Your task to perform on an android device: toggle priority inbox in the gmail app Image 0: 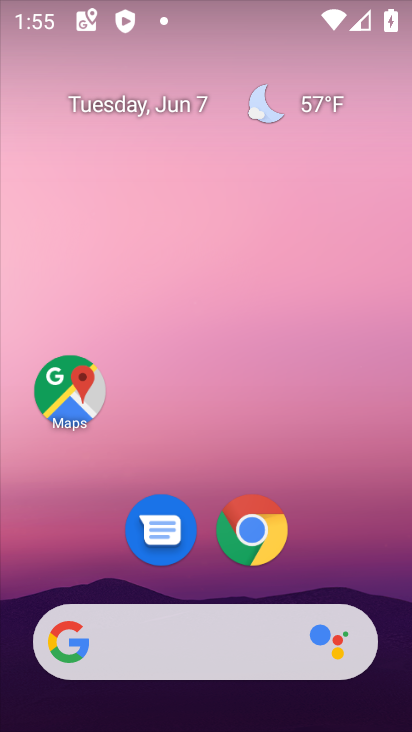
Step 0: drag from (292, 366) to (251, 111)
Your task to perform on an android device: toggle priority inbox in the gmail app Image 1: 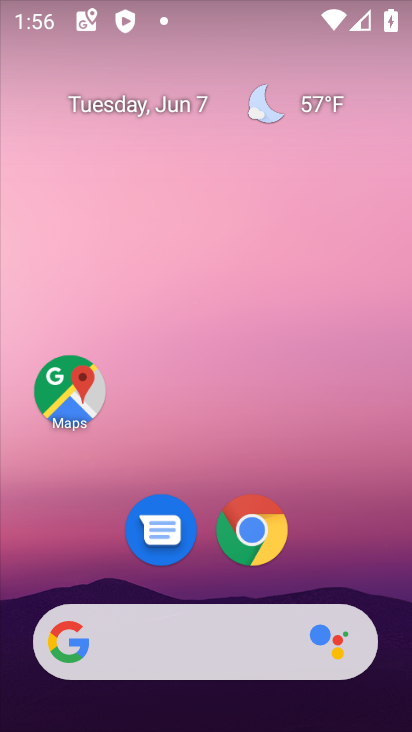
Step 1: drag from (315, 554) to (271, 118)
Your task to perform on an android device: toggle priority inbox in the gmail app Image 2: 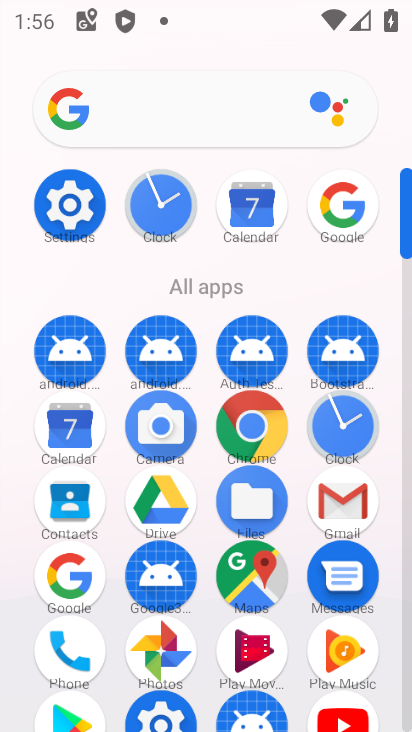
Step 2: click (347, 503)
Your task to perform on an android device: toggle priority inbox in the gmail app Image 3: 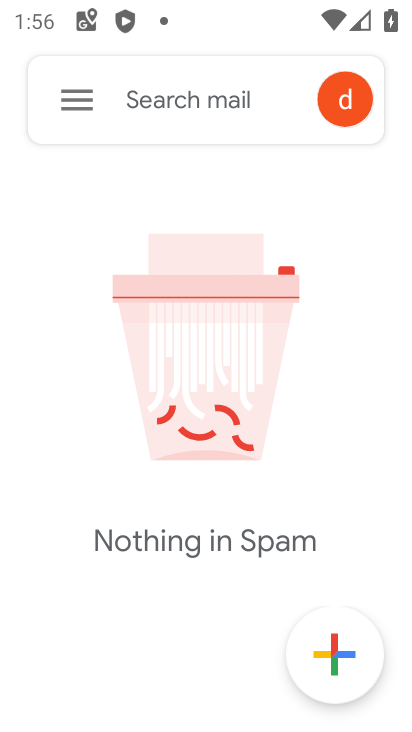
Step 3: click (73, 100)
Your task to perform on an android device: toggle priority inbox in the gmail app Image 4: 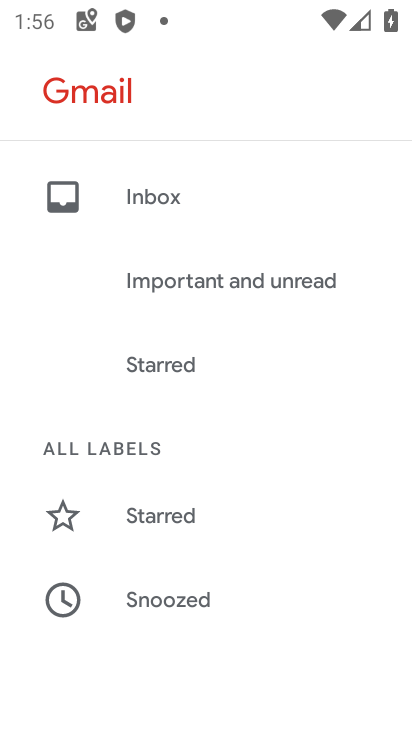
Step 4: drag from (227, 582) to (205, 158)
Your task to perform on an android device: toggle priority inbox in the gmail app Image 5: 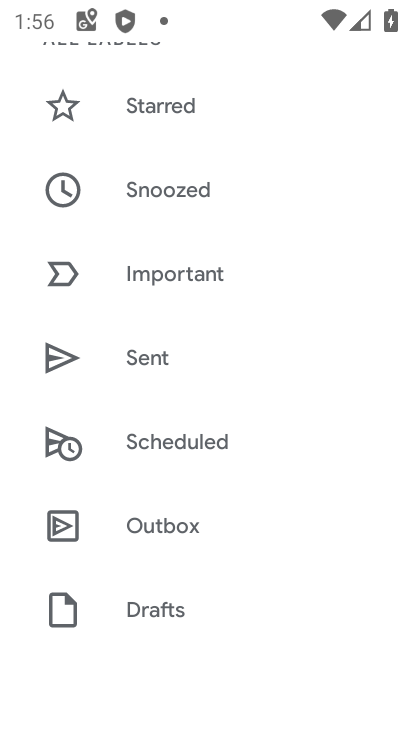
Step 5: drag from (240, 584) to (196, 192)
Your task to perform on an android device: toggle priority inbox in the gmail app Image 6: 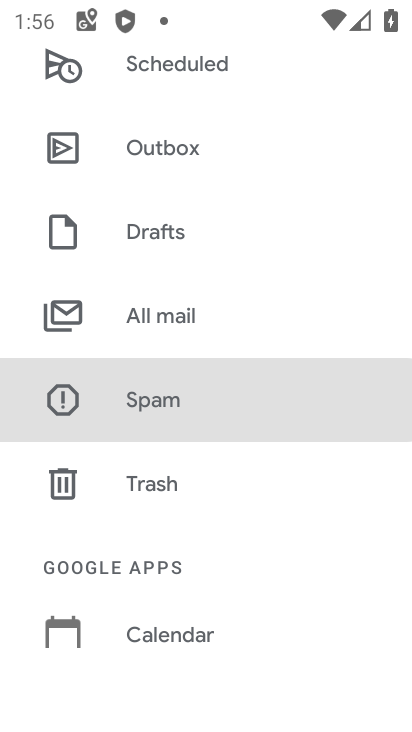
Step 6: drag from (219, 593) to (212, 233)
Your task to perform on an android device: toggle priority inbox in the gmail app Image 7: 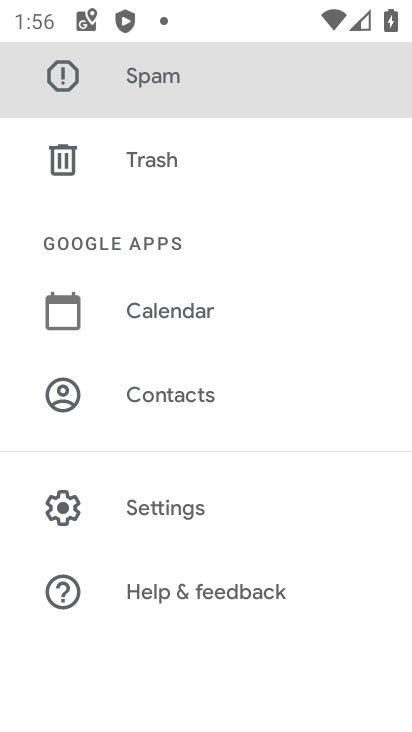
Step 7: click (179, 514)
Your task to perform on an android device: toggle priority inbox in the gmail app Image 8: 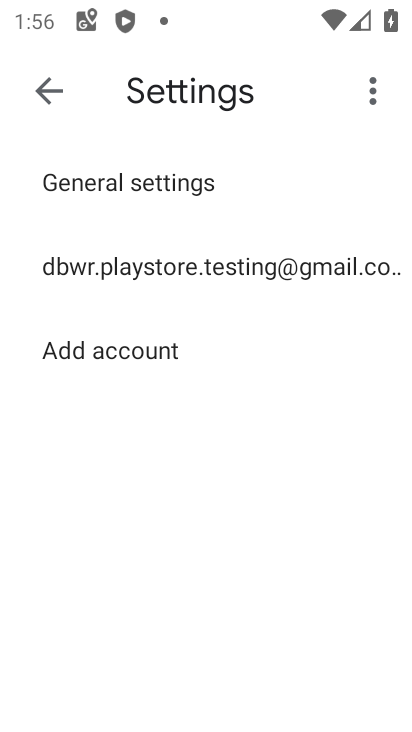
Step 8: click (98, 272)
Your task to perform on an android device: toggle priority inbox in the gmail app Image 9: 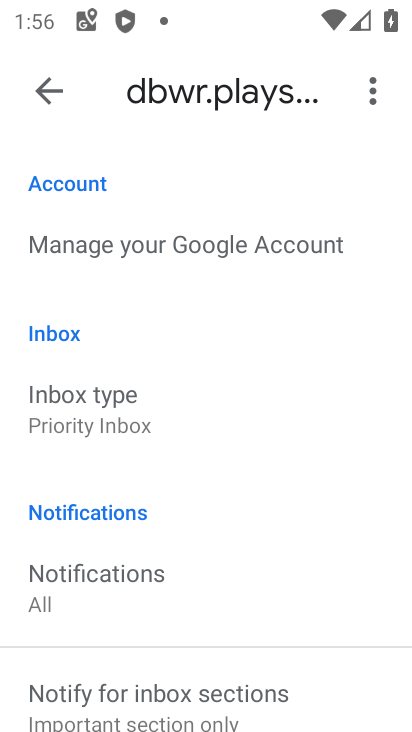
Step 9: click (133, 410)
Your task to perform on an android device: toggle priority inbox in the gmail app Image 10: 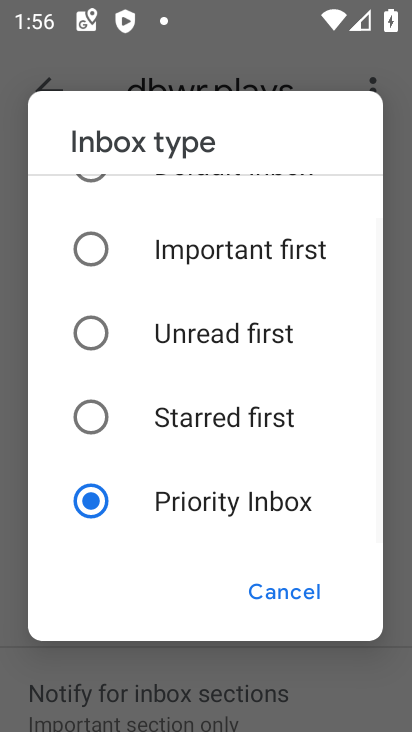
Step 10: drag from (133, 450) to (136, 500)
Your task to perform on an android device: toggle priority inbox in the gmail app Image 11: 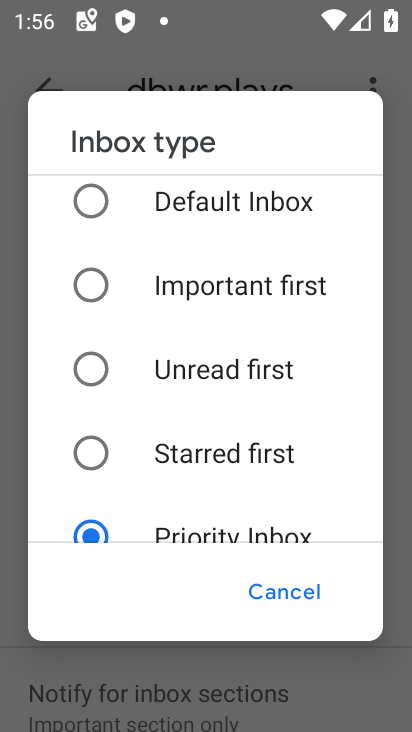
Step 11: click (94, 200)
Your task to perform on an android device: toggle priority inbox in the gmail app Image 12: 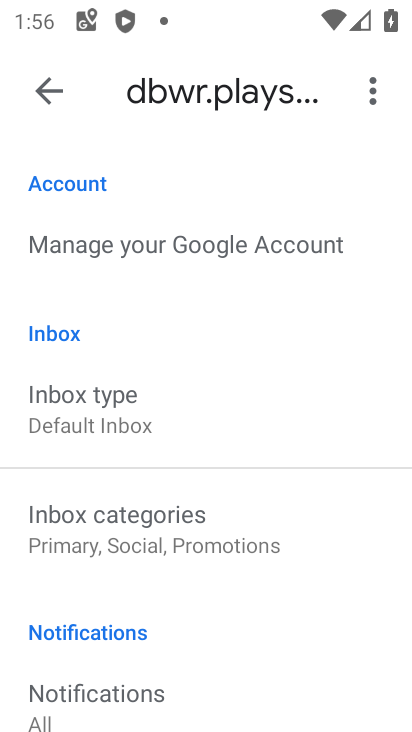
Step 12: task complete